Your task to perform on an android device: Do I have any events this weekend? Image 0: 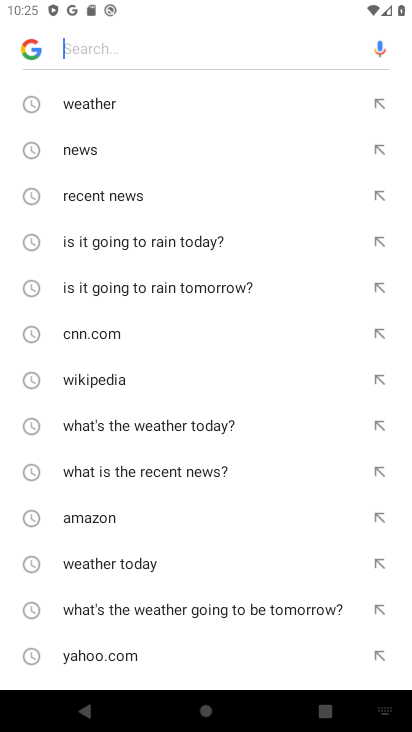
Step 0: press back button
Your task to perform on an android device: Do I have any events this weekend? Image 1: 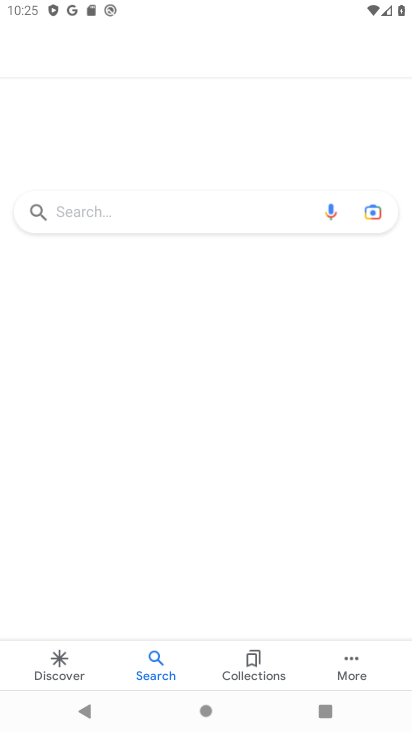
Step 1: press home button
Your task to perform on an android device: Do I have any events this weekend? Image 2: 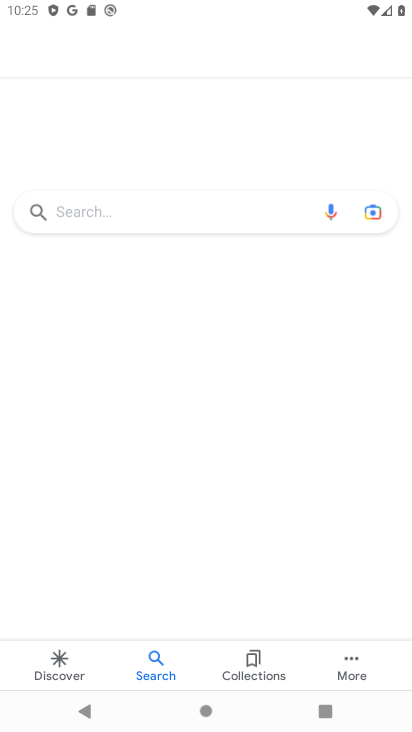
Step 2: press home button
Your task to perform on an android device: Do I have any events this weekend? Image 3: 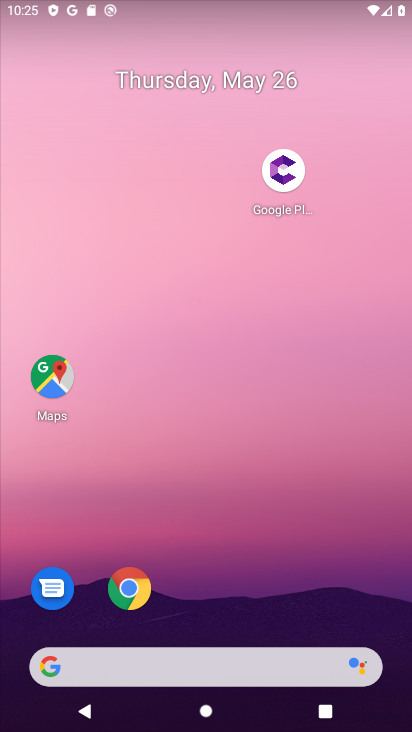
Step 3: press home button
Your task to perform on an android device: Do I have any events this weekend? Image 4: 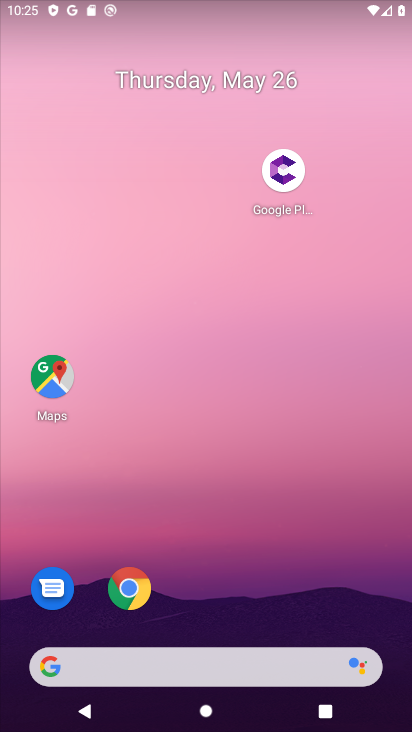
Step 4: press home button
Your task to perform on an android device: Do I have any events this weekend? Image 5: 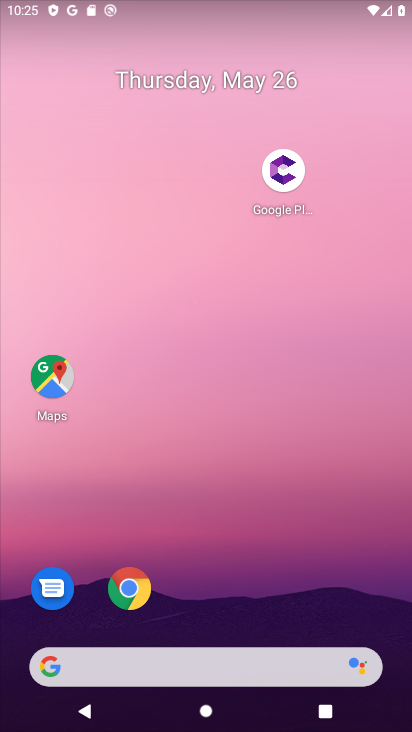
Step 5: press home button
Your task to perform on an android device: Do I have any events this weekend? Image 6: 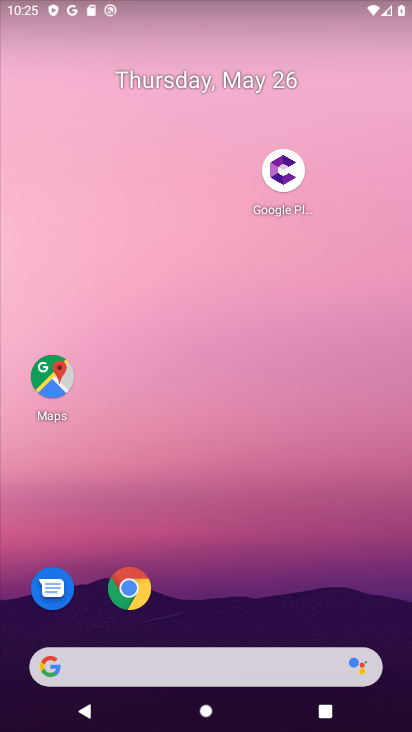
Step 6: press home button
Your task to perform on an android device: Do I have any events this weekend? Image 7: 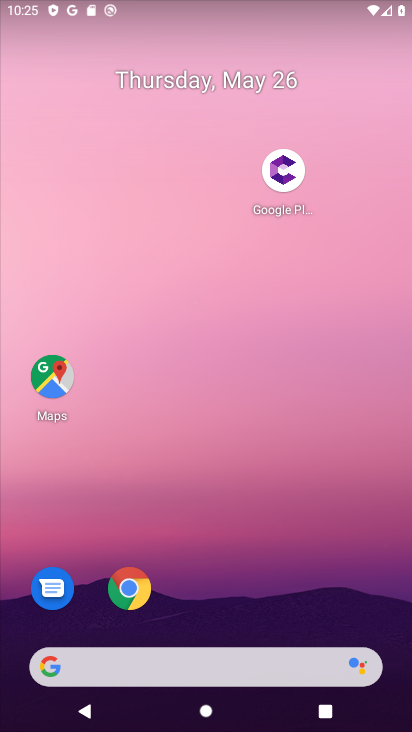
Step 7: drag from (257, 707) to (180, 25)
Your task to perform on an android device: Do I have any events this weekend? Image 8: 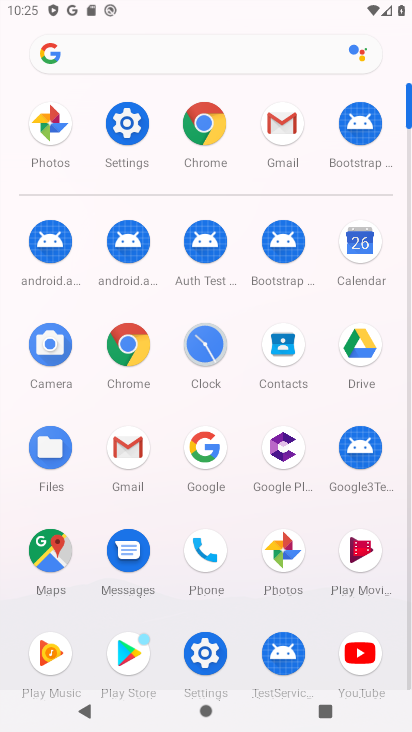
Step 8: click (351, 250)
Your task to perform on an android device: Do I have any events this weekend? Image 9: 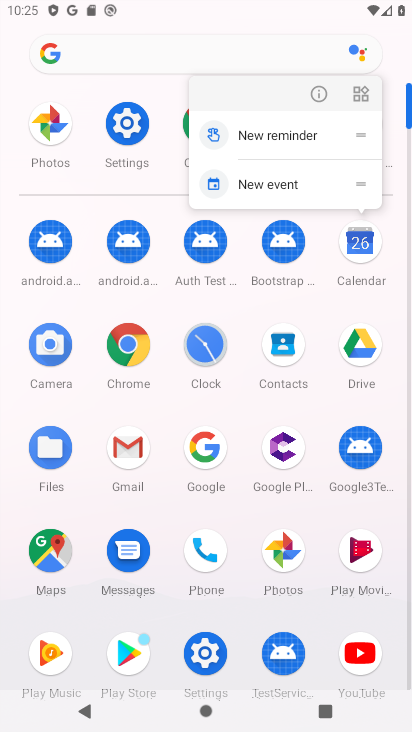
Step 9: click (354, 254)
Your task to perform on an android device: Do I have any events this weekend? Image 10: 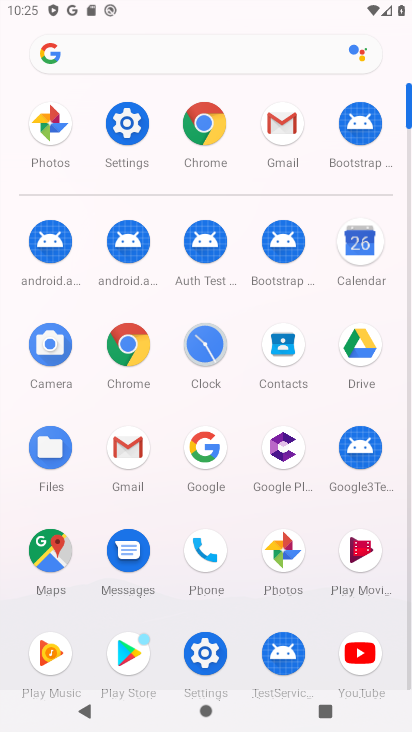
Step 10: click (351, 250)
Your task to perform on an android device: Do I have any events this weekend? Image 11: 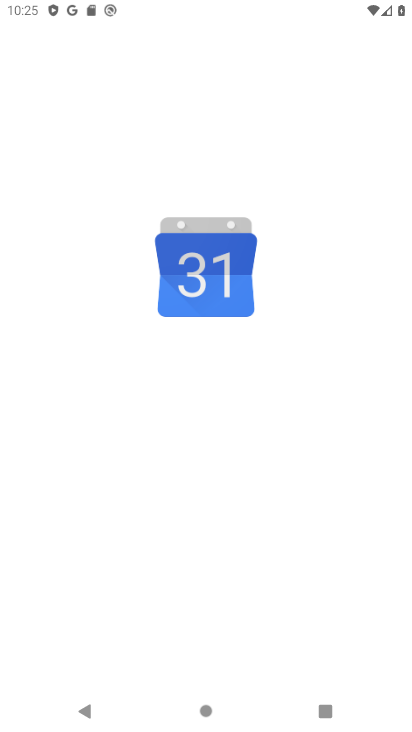
Step 11: click (351, 250)
Your task to perform on an android device: Do I have any events this weekend? Image 12: 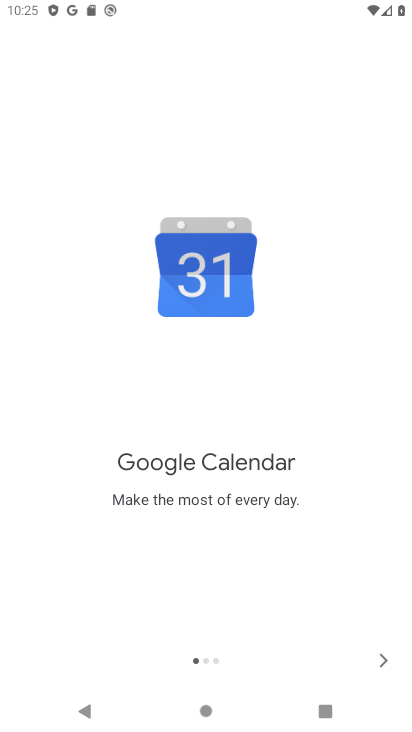
Step 12: click (388, 651)
Your task to perform on an android device: Do I have any events this weekend? Image 13: 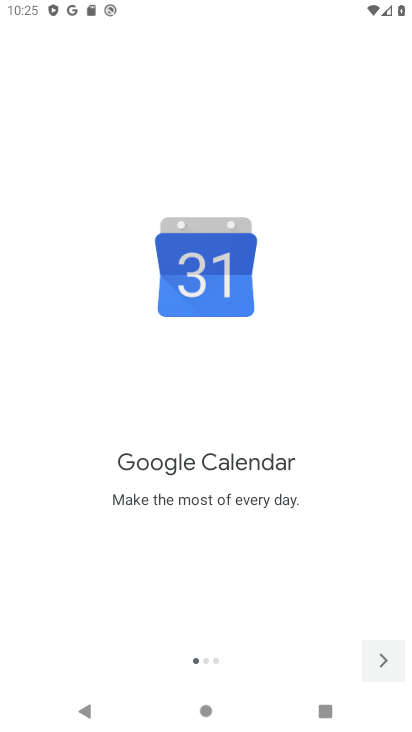
Step 13: click (388, 651)
Your task to perform on an android device: Do I have any events this weekend? Image 14: 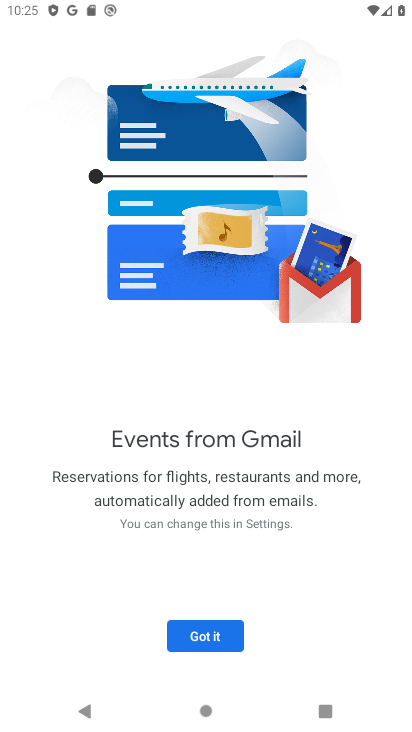
Step 14: click (221, 630)
Your task to perform on an android device: Do I have any events this weekend? Image 15: 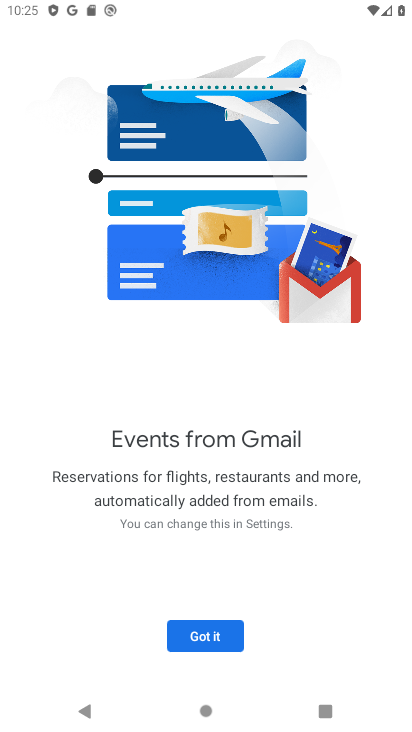
Step 15: click (221, 630)
Your task to perform on an android device: Do I have any events this weekend? Image 16: 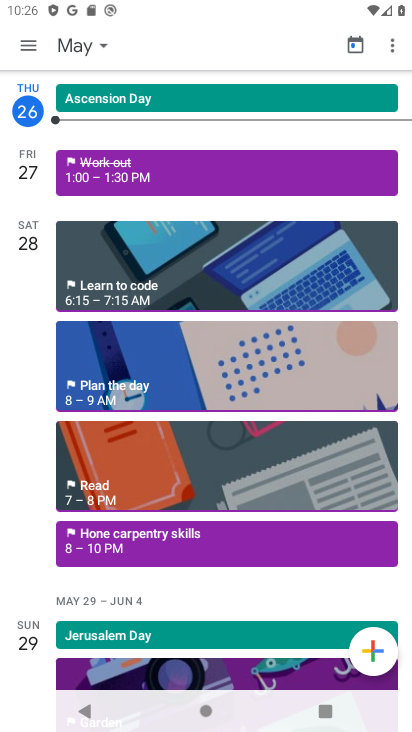
Step 16: click (85, 665)
Your task to perform on an android device: Do I have any events this weekend? Image 17: 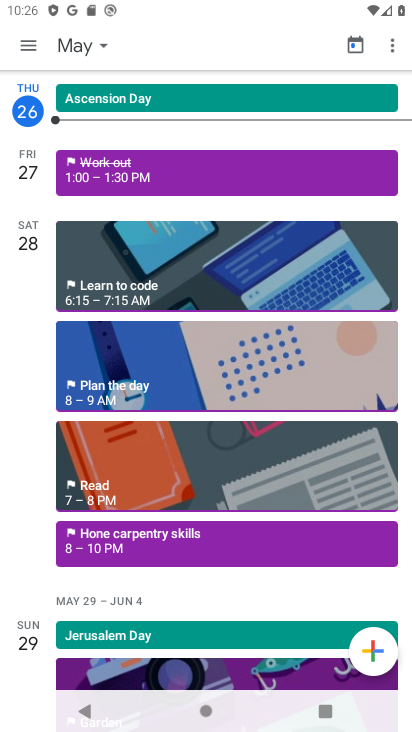
Step 17: click (85, 665)
Your task to perform on an android device: Do I have any events this weekend? Image 18: 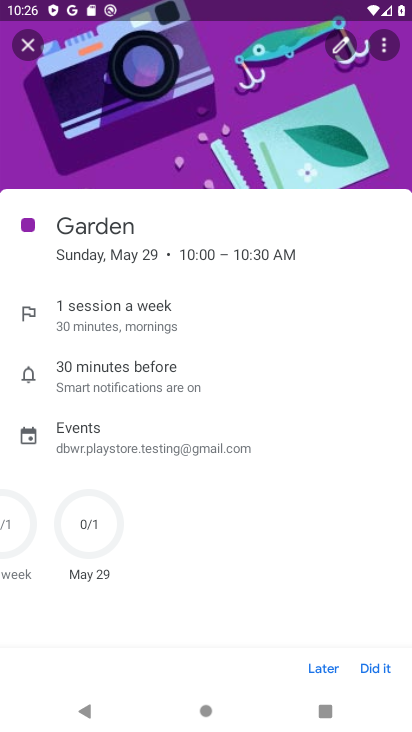
Step 18: click (33, 53)
Your task to perform on an android device: Do I have any events this weekend? Image 19: 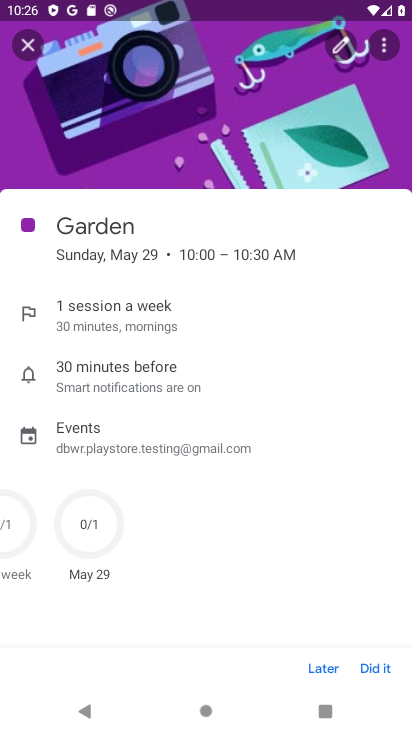
Step 19: click (33, 53)
Your task to perform on an android device: Do I have any events this weekend? Image 20: 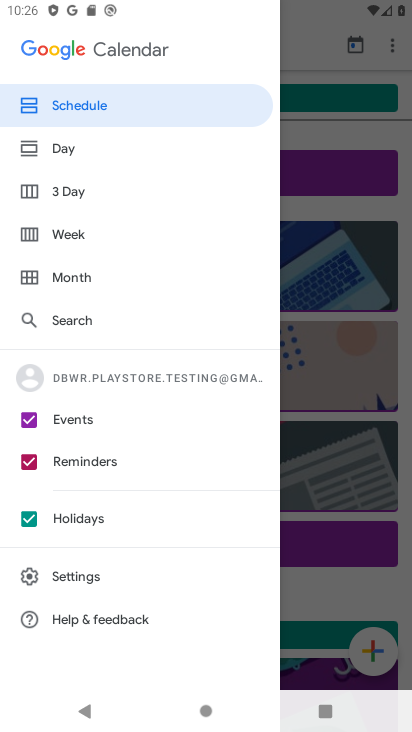
Step 20: task complete